Your task to perform on an android device: Check the news Image 0: 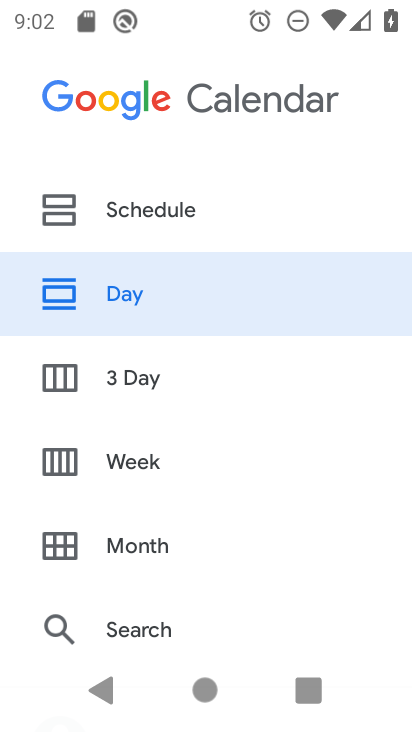
Step 0: press home button
Your task to perform on an android device: Check the news Image 1: 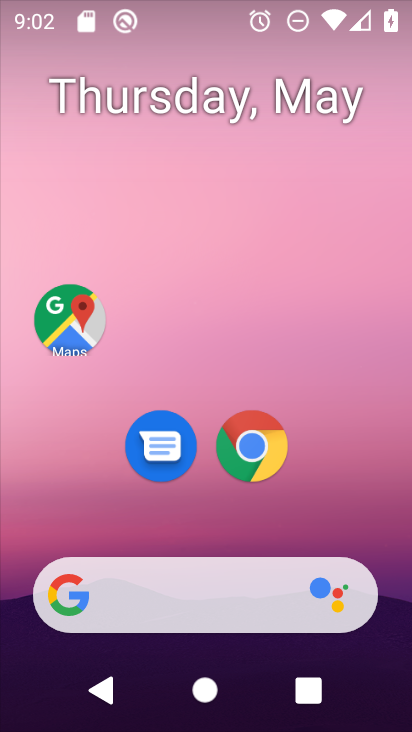
Step 1: drag from (381, 533) to (407, 124)
Your task to perform on an android device: Check the news Image 2: 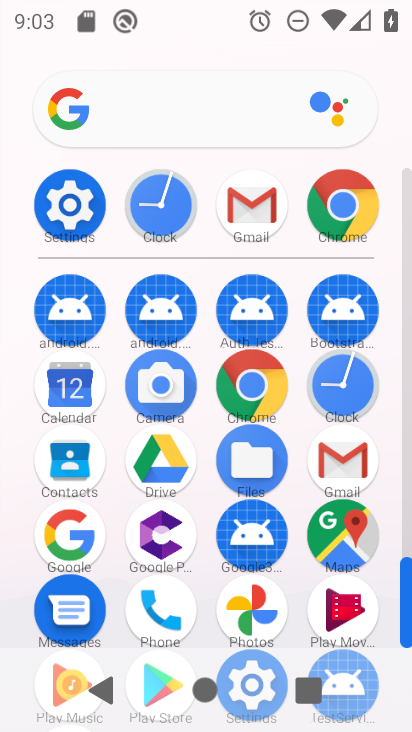
Step 2: click (280, 389)
Your task to perform on an android device: Check the news Image 3: 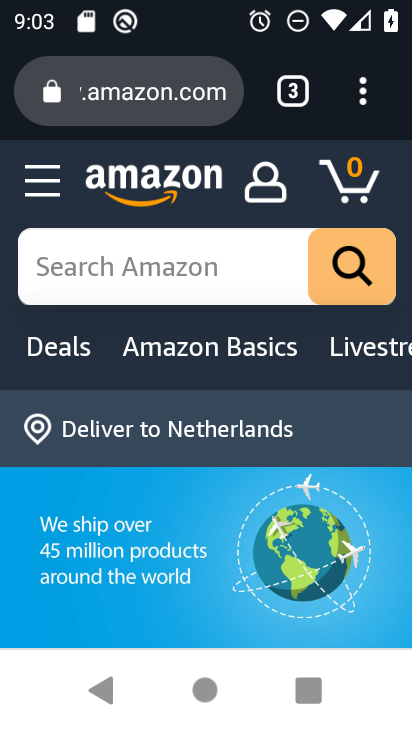
Step 3: click (128, 100)
Your task to perform on an android device: Check the news Image 4: 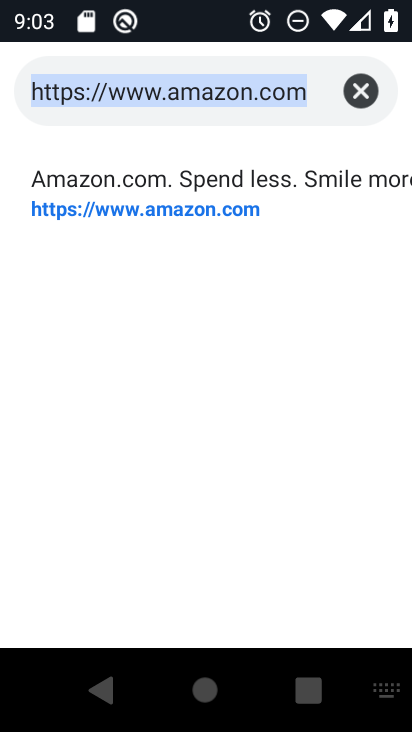
Step 4: click (358, 95)
Your task to perform on an android device: Check the news Image 5: 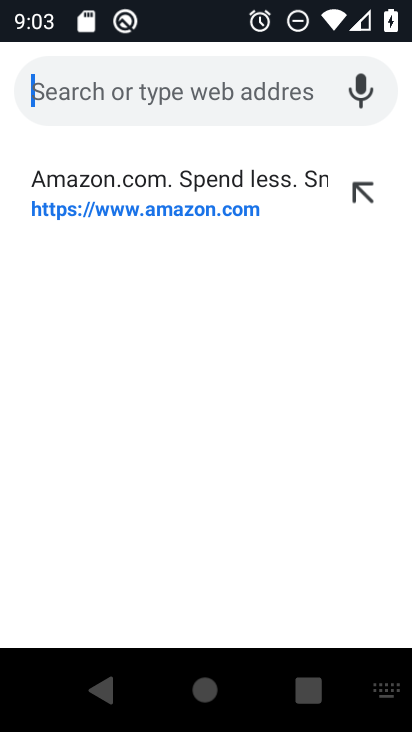
Step 5: type "check news"
Your task to perform on an android device: Check the news Image 6: 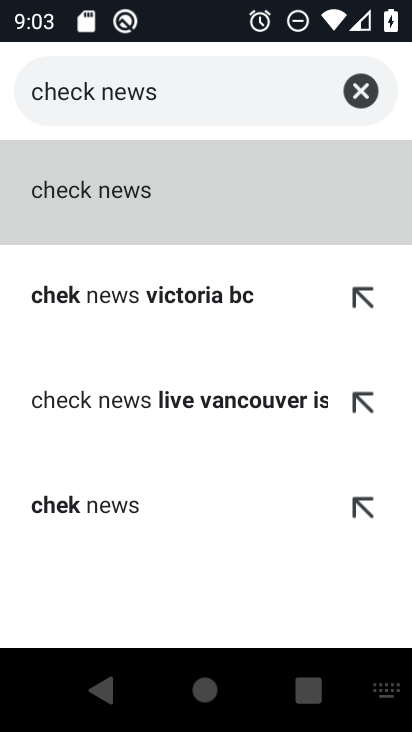
Step 6: click (91, 199)
Your task to perform on an android device: Check the news Image 7: 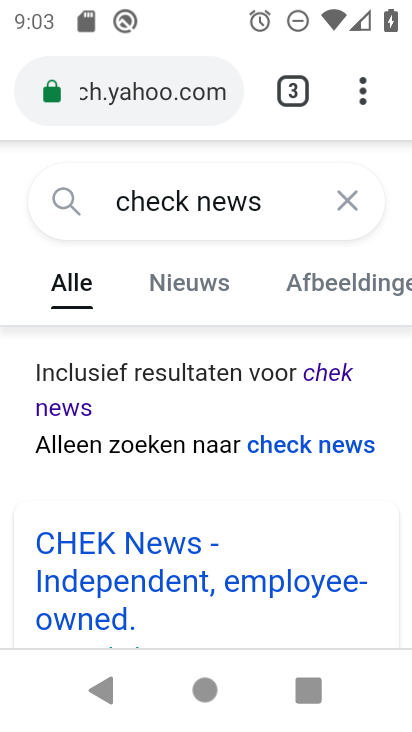
Step 7: drag from (260, 607) to (227, 319)
Your task to perform on an android device: Check the news Image 8: 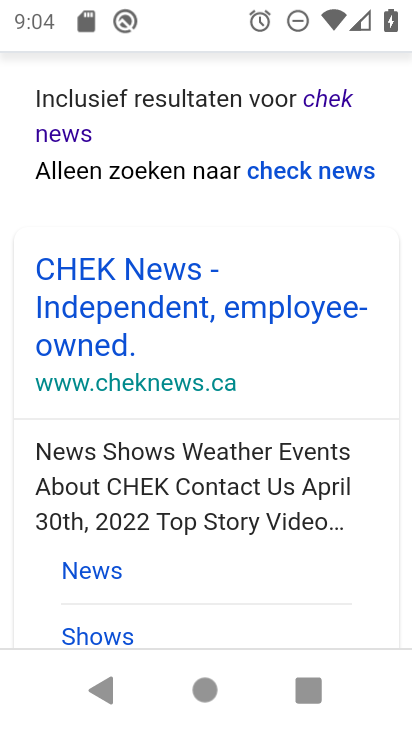
Step 8: click (162, 305)
Your task to perform on an android device: Check the news Image 9: 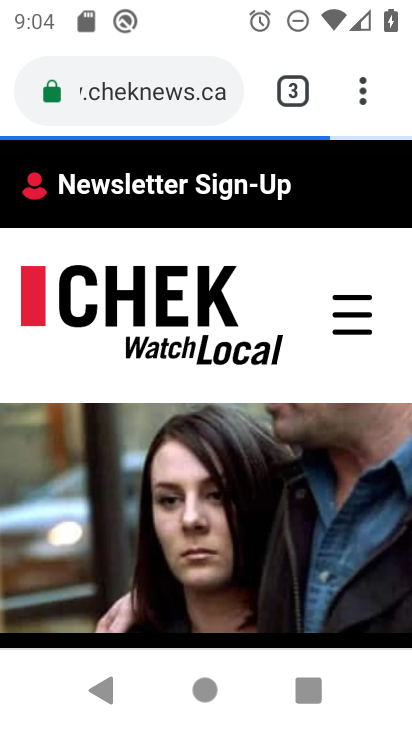
Step 9: task complete